Your task to perform on an android device: Go to Google Image 0: 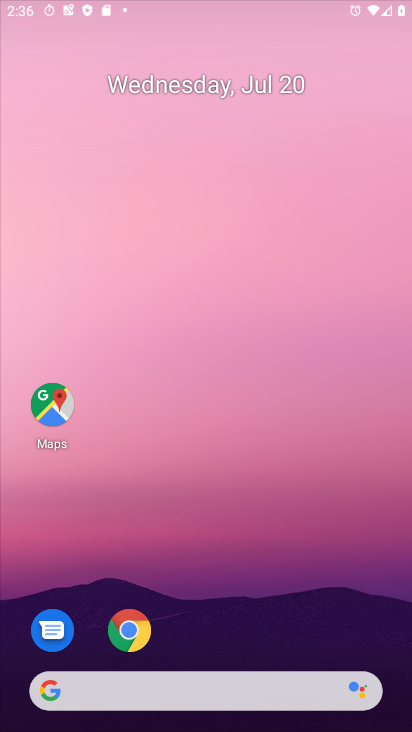
Step 0: press home button
Your task to perform on an android device: Go to Google Image 1: 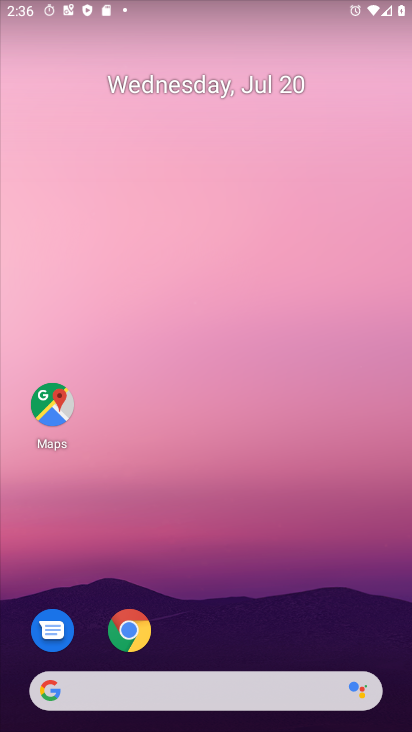
Step 1: drag from (154, 691) to (313, 279)
Your task to perform on an android device: Go to Google Image 2: 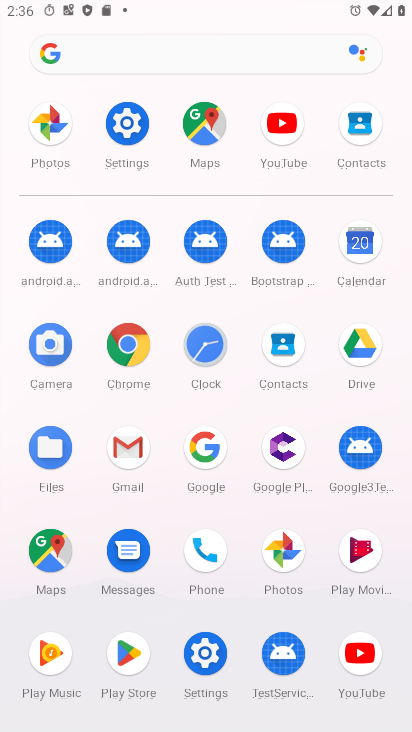
Step 2: click (208, 452)
Your task to perform on an android device: Go to Google Image 3: 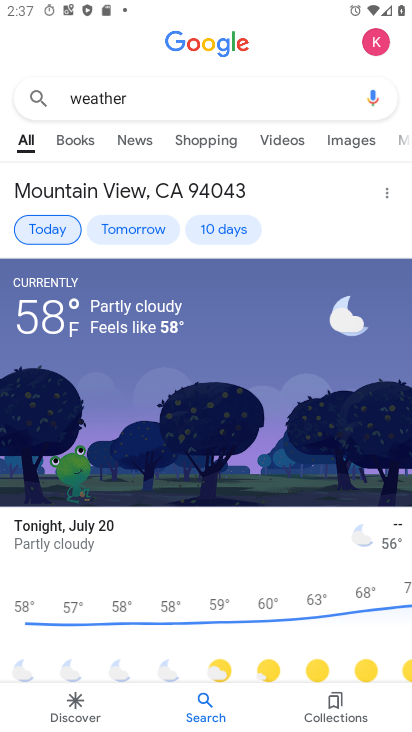
Step 3: task complete